Your task to perform on an android device: read, delete, or share a saved page in the chrome app Image 0: 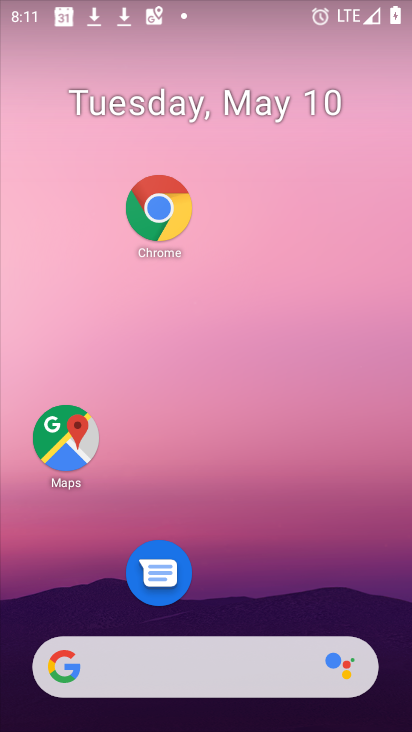
Step 0: drag from (301, 688) to (408, 154)
Your task to perform on an android device: read, delete, or share a saved page in the chrome app Image 1: 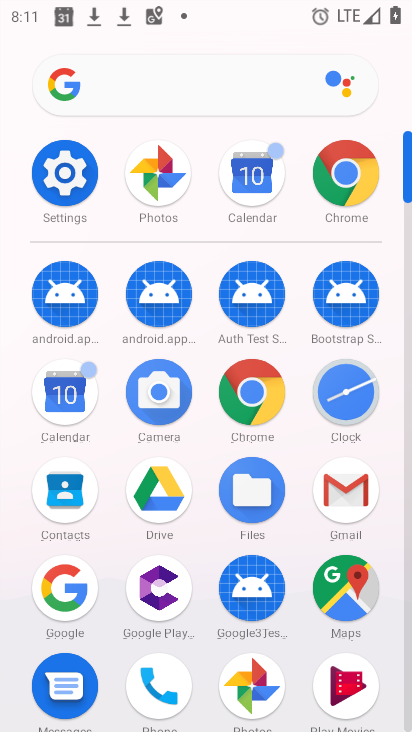
Step 1: click (359, 163)
Your task to perform on an android device: read, delete, or share a saved page in the chrome app Image 2: 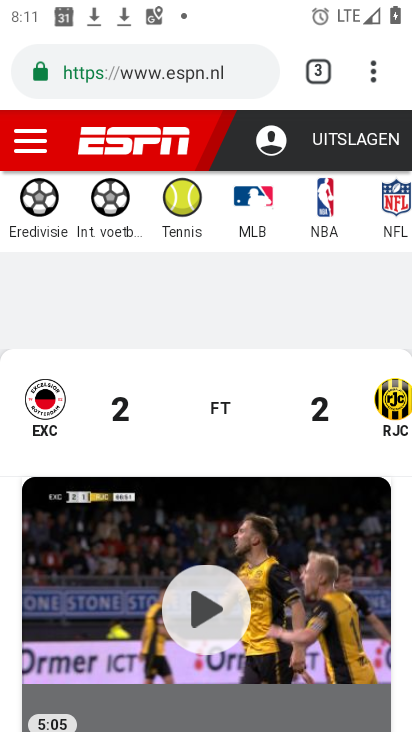
Step 2: click (375, 74)
Your task to perform on an android device: read, delete, or share a saved page in the chrome app Image 3: 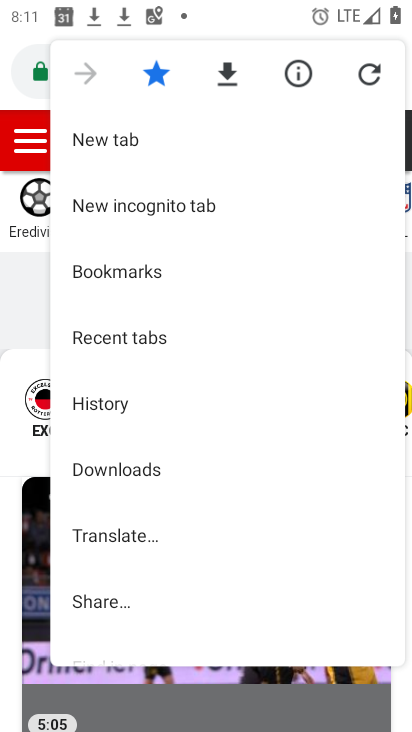
Step 3: click (137, 606)
Your task to perform on an android device: read, delete, or share a saved page in the chrome app Image 4: 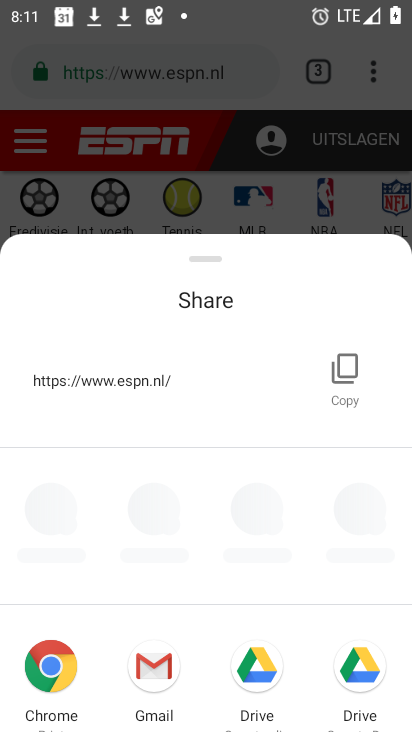
Step 4: task complete